Your task to perform on an android device: turn notification dots on Image 0: 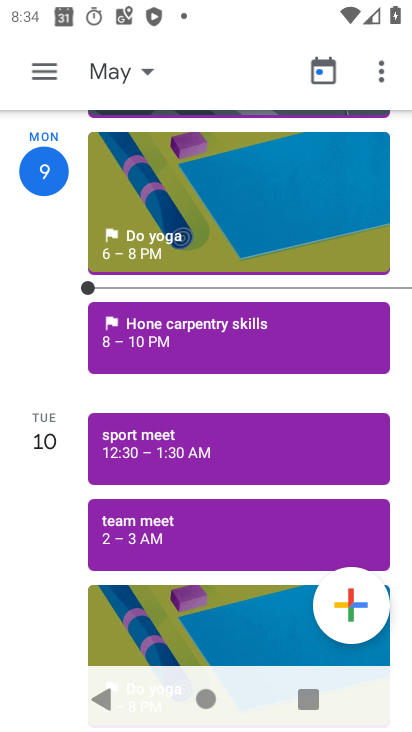
Step 0: press home button
Your task to perform on an android device: turn notification dots on Image 1: 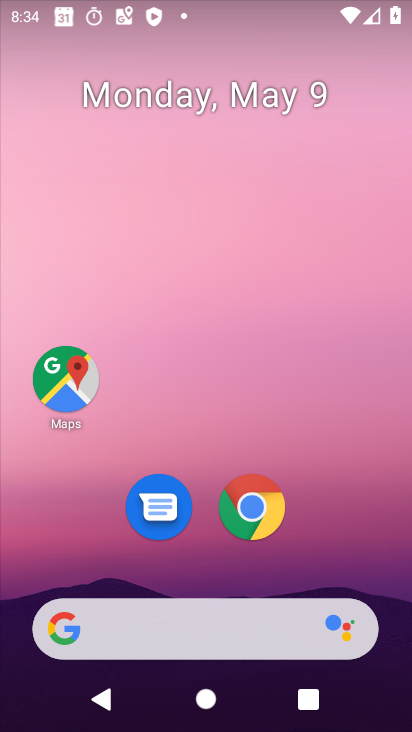
Step 1: drag from (261, 679) to (206, 250)
Your task to perform on an android device: turn notification dots on Image 2: 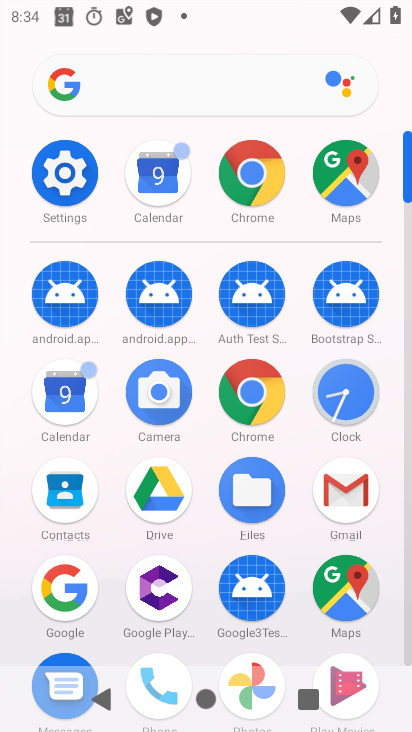
Step 2: click (43, 183)
Your task to perform on an android device: turn notification dots on Image 3: 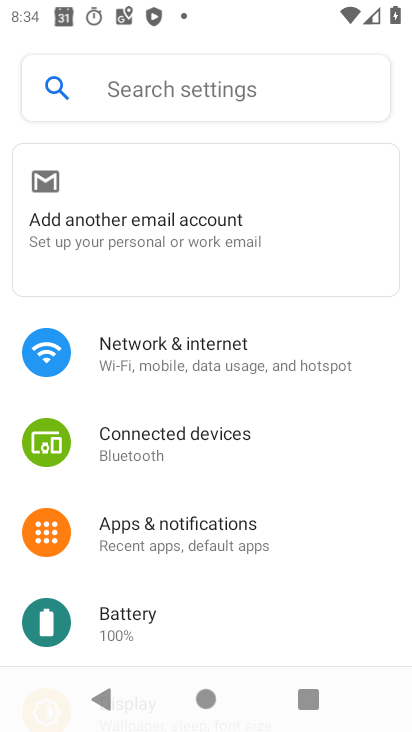
Step 3: click (154, 88)
Your task to perform on an android device: turn notification dots on Image 4: 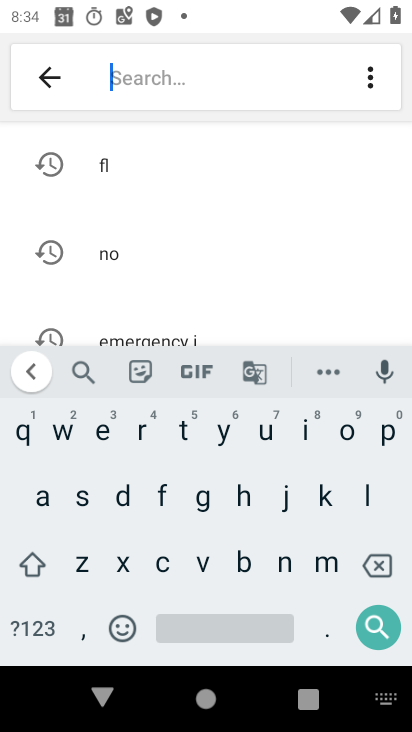
Step 4: click (117, 496)
Your task to perform on an android device: turn notification dots on Image 5: 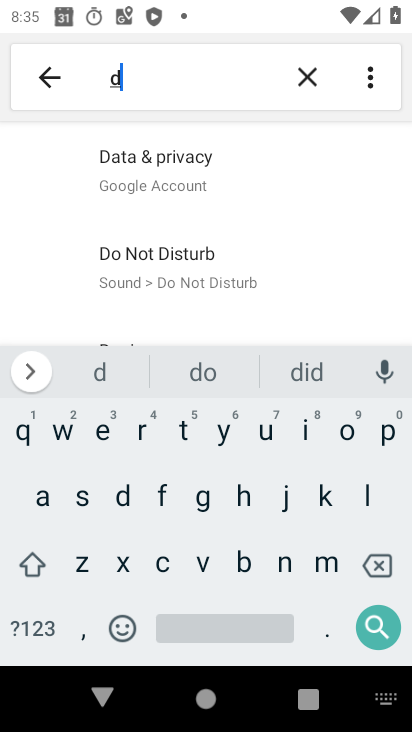
Step 5: click (112, 492)
Your task to perform on an android device: turn notification dots on Image 6: 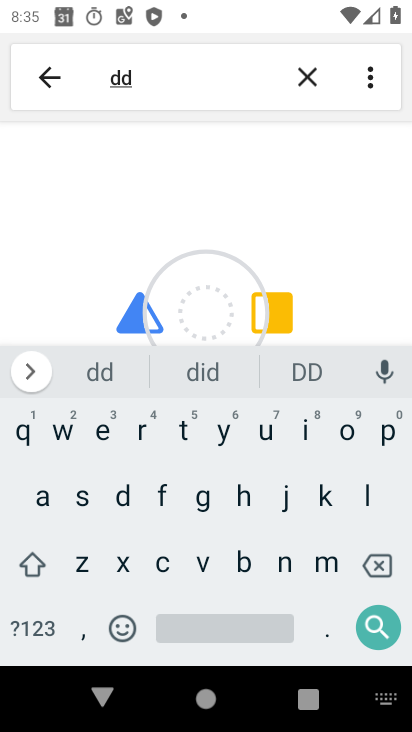
Step 6: click (378, 571)
Your task to perform on an android device: turn notification dots on Image 7: 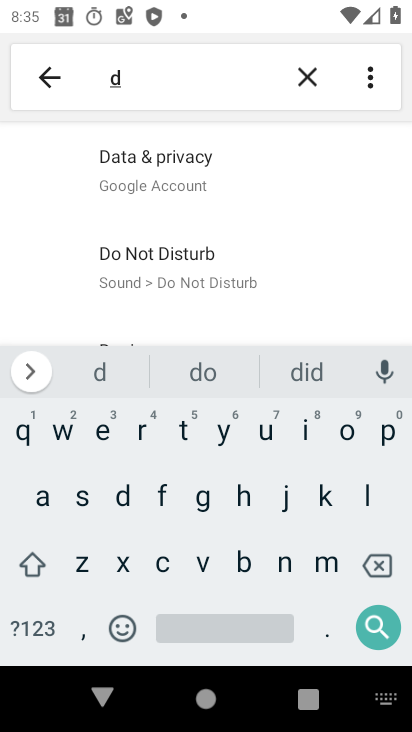
Step 7: click (343, 433)
Your task to perform on an android device: turn notification dots on Image 8: 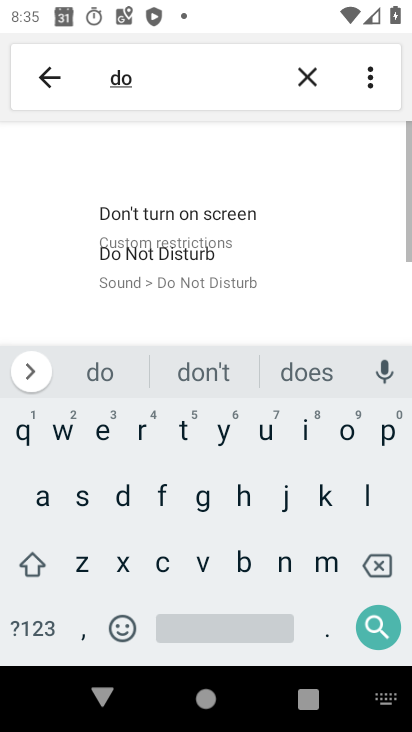
Step 8: click (177, 436)
Your task to perform on an android device: turn notification dots on Image 9: 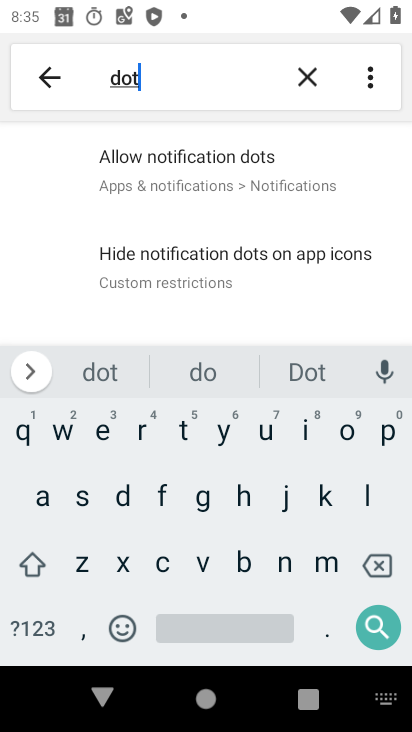
Step 9: click (275, 154)
Your task to perform on an android device: turn notification dots on Image 10: 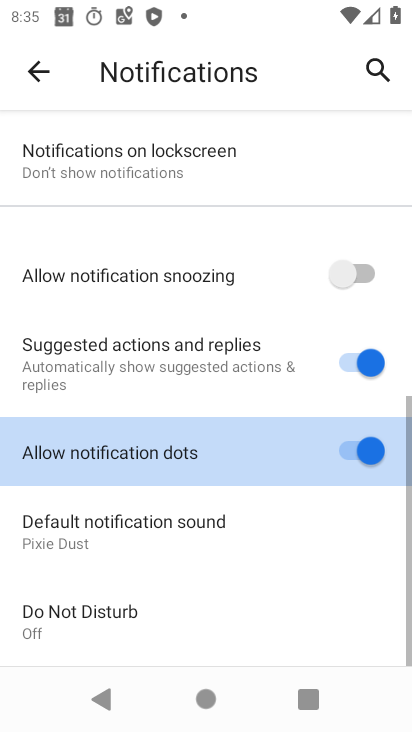
Step 10: click (284, 451)
Your task to perform on an android device: turn notification dots on Image 11: 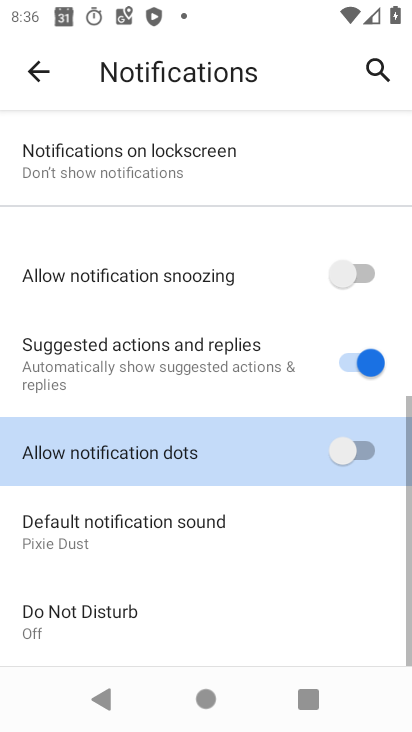
Step 11: click (283, 451)
Your task to perform on an android device: turn notification dots on Image 12: 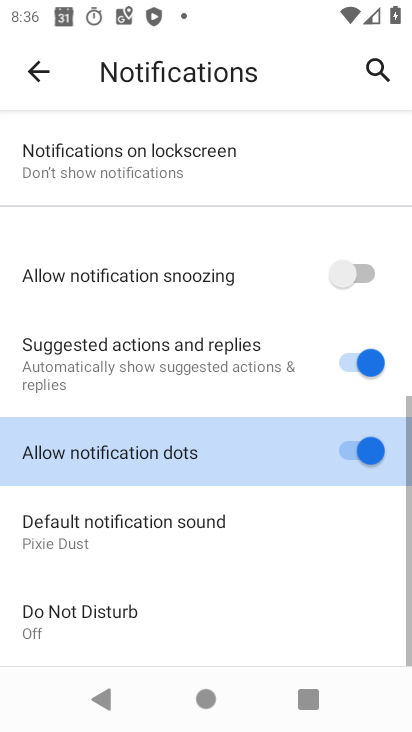
Step 12: task complete